Your task to perform on an android device: Show me the alarms in the clock app Image 0: 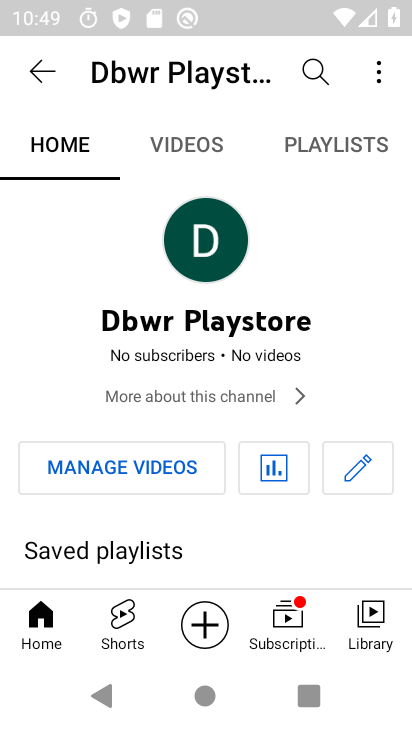
Step 0: press home button
Your task to perform on an android device: Show me the alarms in the clock app Image 1: 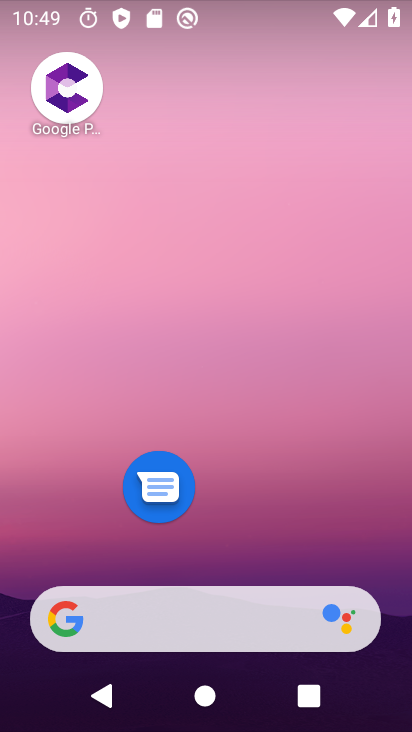
Step 1: drag from (269, 269) to (286, 84)
Your task to perform on an android device: Show me the alarms in the clock app Image 2: 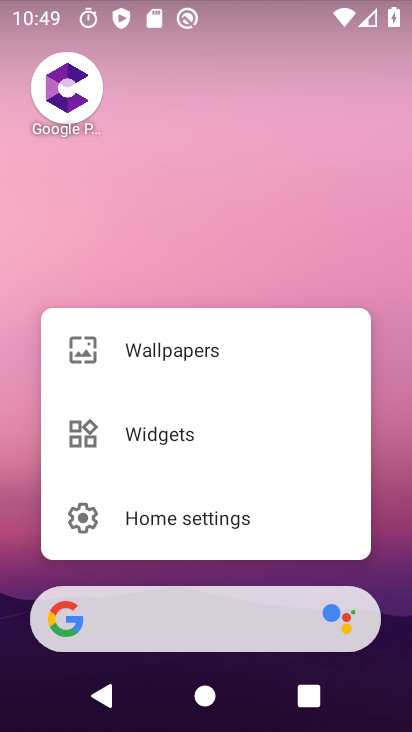
Step 2: click (280, 188)
Your task to perform on an android device: Show me the alarms in the clock app Image 3: 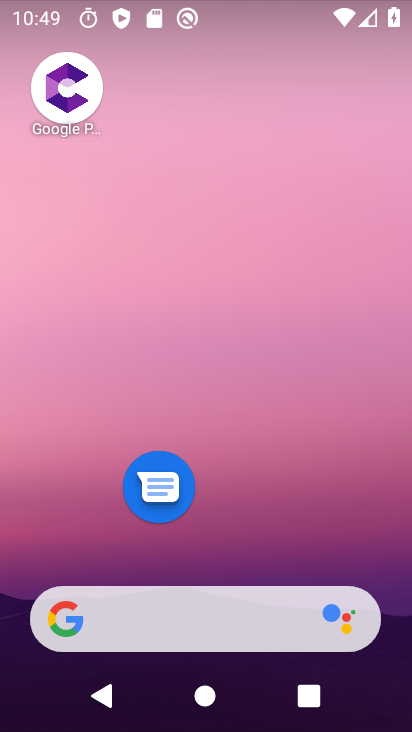
Step 3: drag from (301, 571) to (307, 61)
Your task to perform on an android device: Show me the alarms in the clock app Image 4: 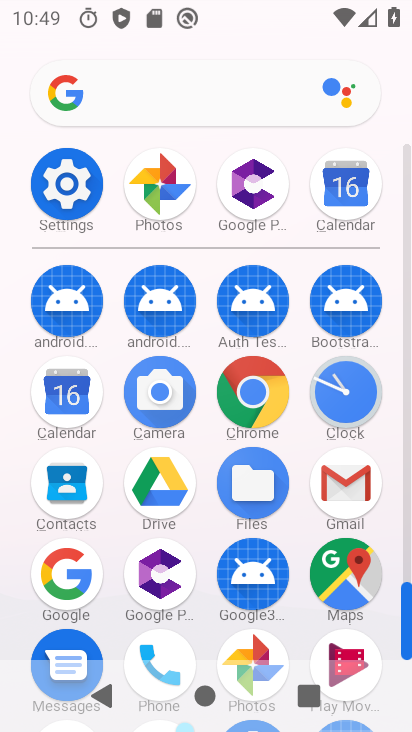
Step 4: drag from (291, 210) to (322, 73)
Your task to perform on an android device: Show me the alarms in the clock app Image 5: 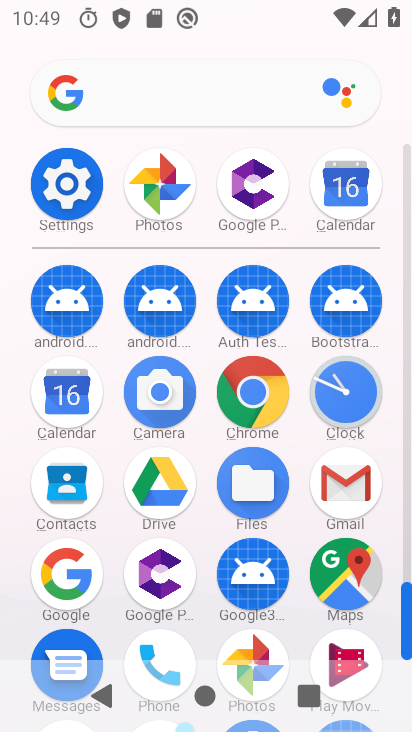
Step 5: click (352, 399)
Your task to perform on an android device: Show me the alarms in the clock app Image 6: 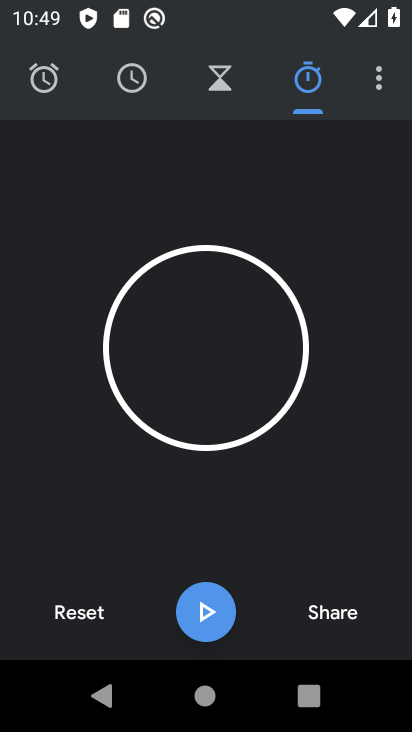
Step 6: click (36, 91)
Your task to perform on an android device: Show me the alarms in the clock app Image 7: 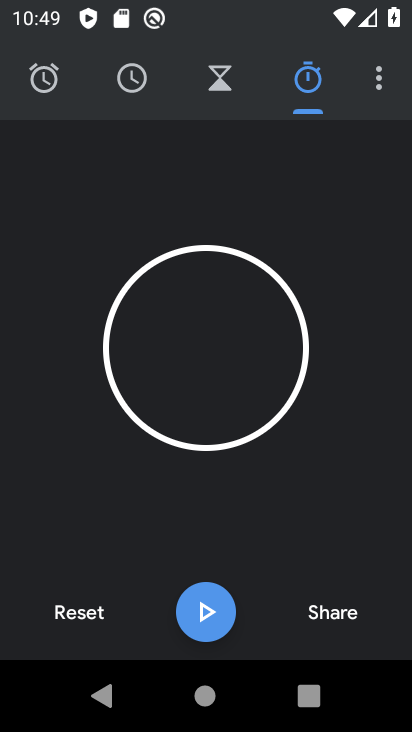
Step 7: click (60, 88)
Your task to perform on an android device: Show me the alarms in the clock app Image 8: 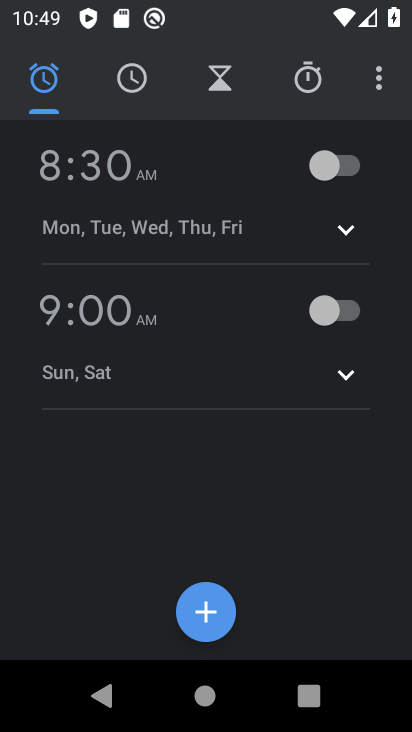
Step 8: task complete